Your task to perform on an android device: see tabs open on other devices in the chrome app Image 0: 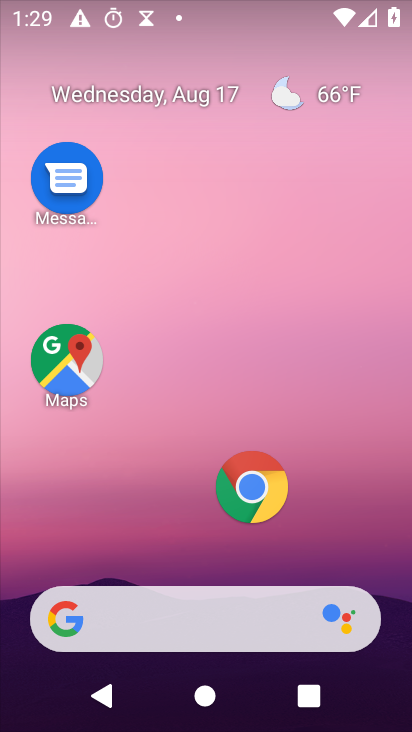
Step 0: press home button
Your task to perform on an android device: see tabs open on other devices in the chrome app Image 1: 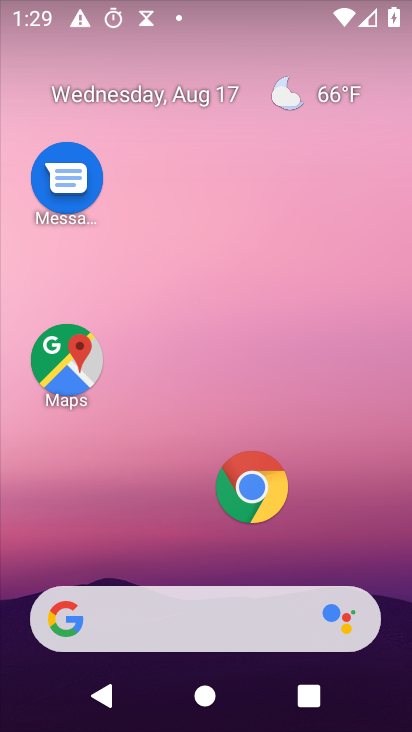
Step 1: click (256, 483)
Your task to perform on an android device: see tabs open on other devices in the chrome app Image 2: 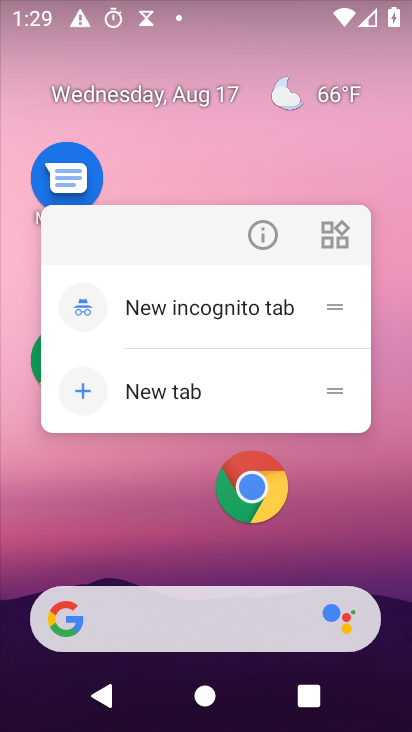
Step 2: click (250, 471)
Your task to perform on an android device: see tabs open on other devices in the chrome app Image 3: 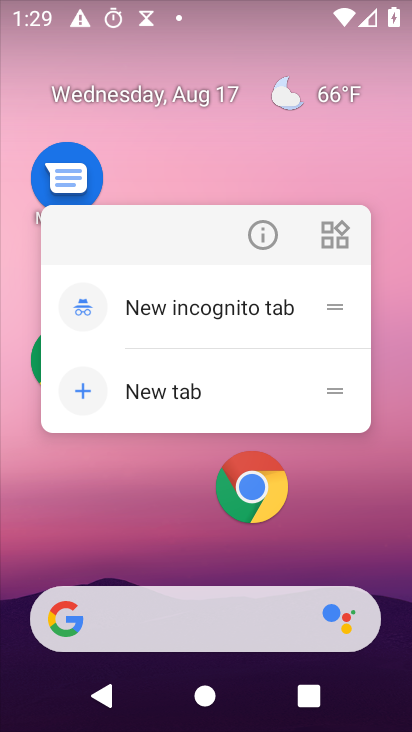
Step 3: click (252, 488)
Your task to perform on an android device: see tabs open on other devices in the chrome app Image 4: 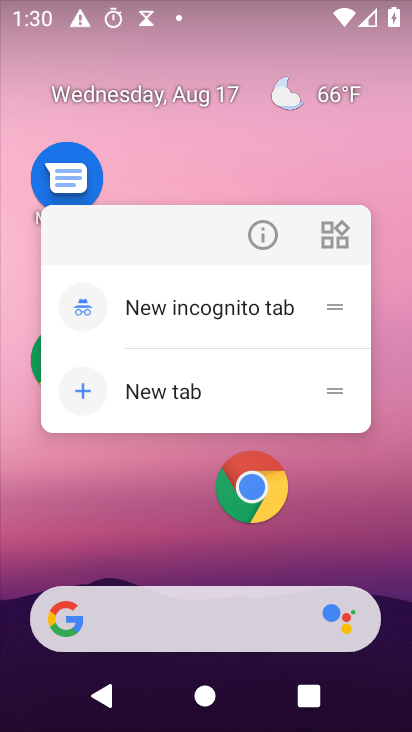
Step 4: click (252, 488)
Your task to perform on an android device: see tabs open on other devices in the chrome app Image 5: 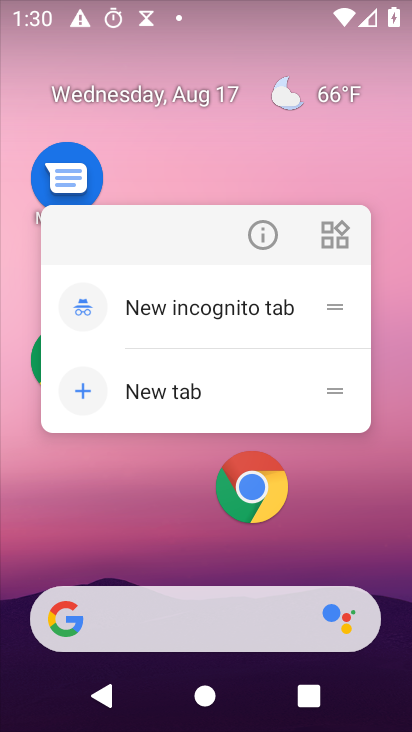
Step 5: click (249, 495)
Your task to perform on an android device: see tabs open on other devices in the chrome app Image 6: 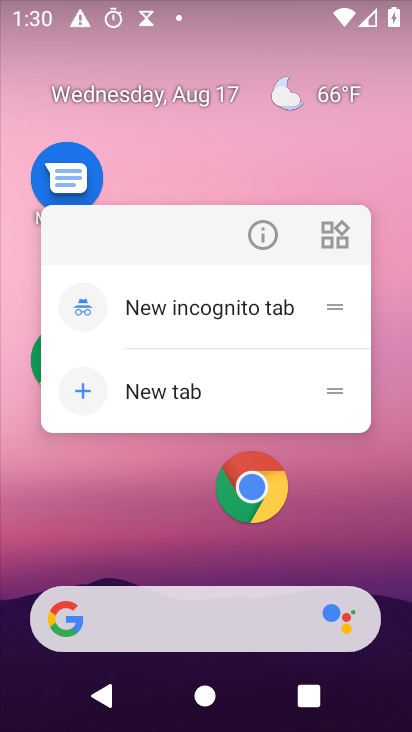
Step 6: click (249, 495)
Your task to perform on an android device: see tabs open on other devices in the chrome app Image 7: 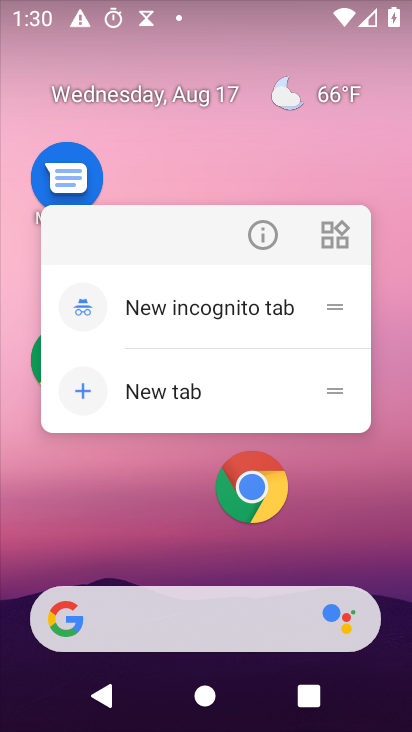
Step 7: click (240, 487)
Your task to perform on an android device: see tabs open on other devices in the chrome app Image 8: 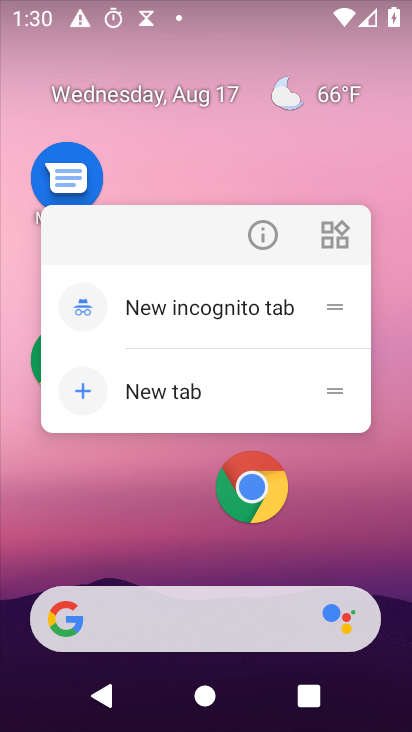
Step 8: click (242, 486)
Your task to perform on an android device: see tabs open on other devices in the chrome app Image 9: 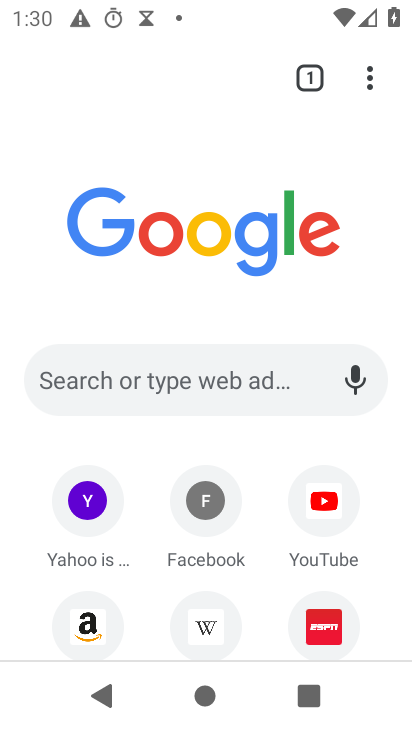
Step 9: task complete